Your task to perform on an android device: Go to battery settings Image 0: 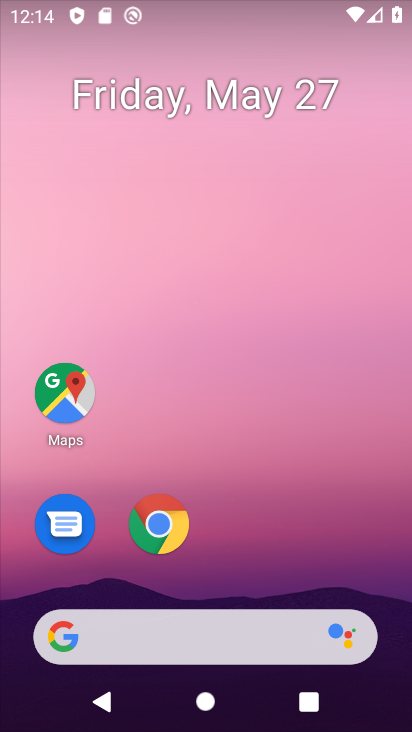
Step 0: drag from (255, 548) to (250, 9)
Your task to perform on an android device: Go to battery settings Image 1: 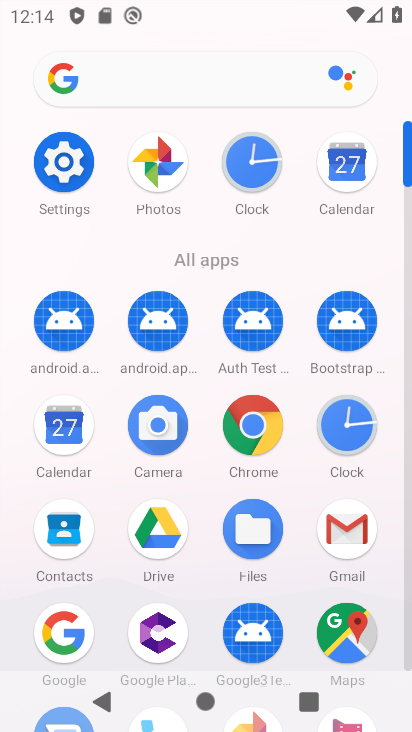
Step 1: click (74, 159)
Your task to perform on an android device: Go to battery settings Image 2: 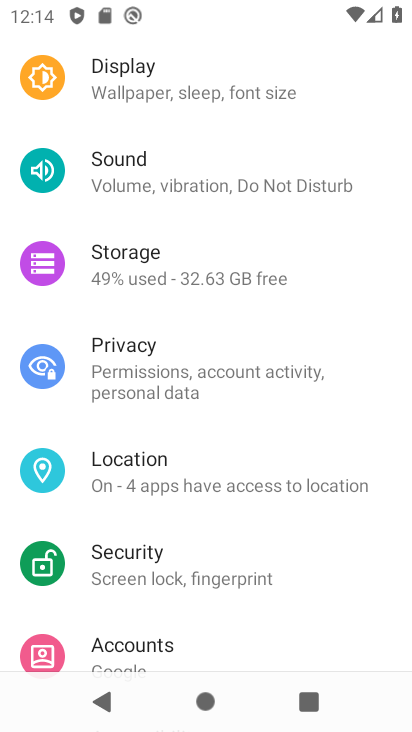
Step 2: drag from (201, 147) to (241, 592)
Your task to perform on an android device: Go to battery settings Image 3: 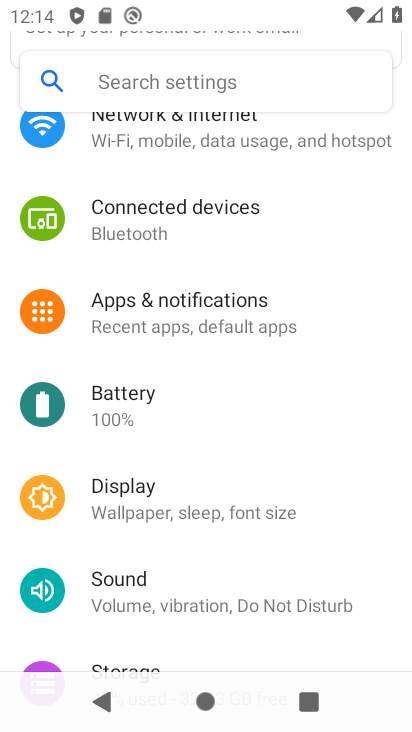
Step 3: click (183, 412)
Your task to perform on an android device: Go to battery settings Image 4: 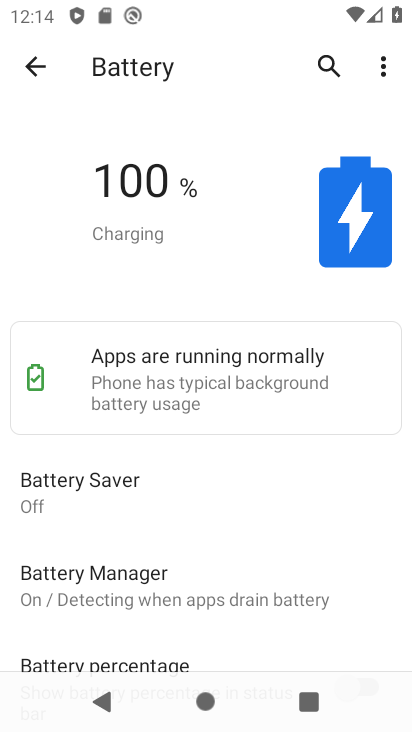
Step 4: task complete